Your task to perform on an android device: delete location history Image 0: 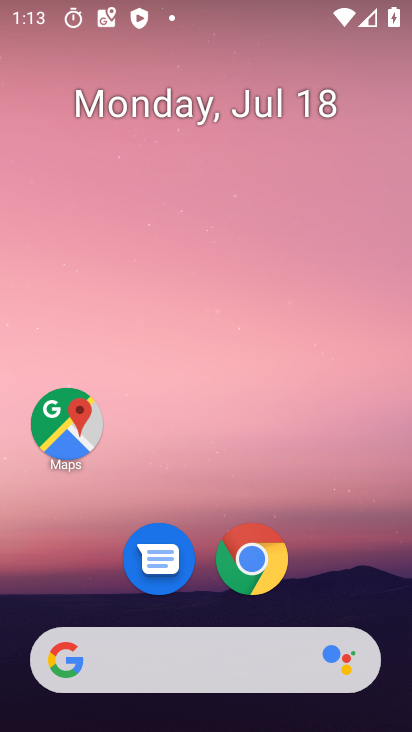
Step 0: click (73, 416)
Your task to perform on an android device: delete location history Image 1: 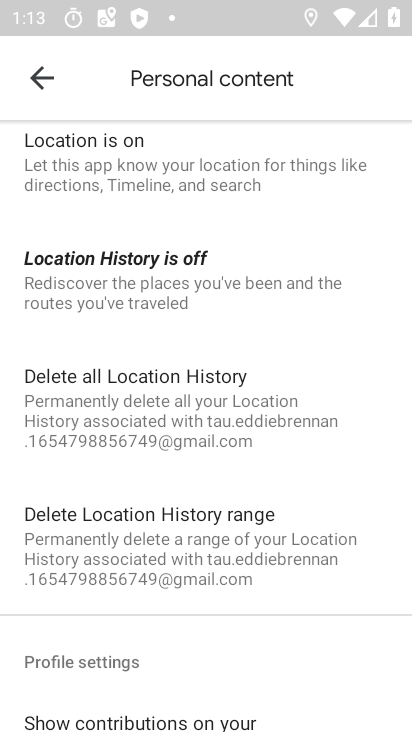
Step 1: click (159, 394)
Your task to perform on an android device: delete location history Image 2: 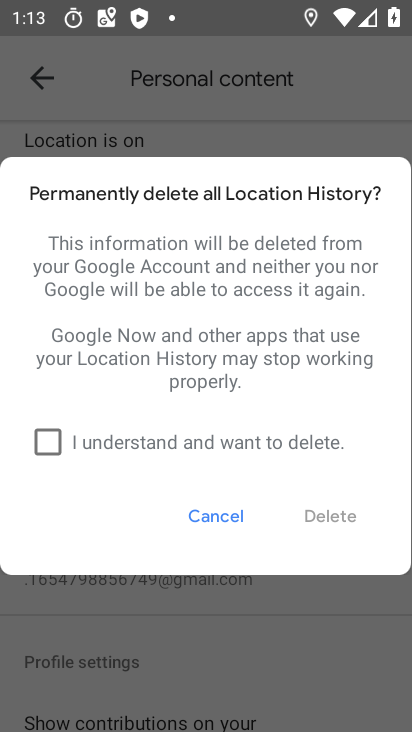
Step 2: click (52, 443)
Your task to perform on an android device: delete location history Image 3: 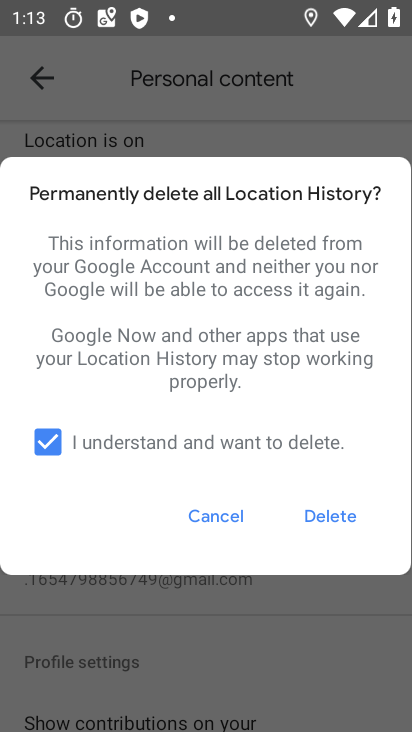
Step 3: click (333, 511)
Your task to perform on an android device: delete location history Image 4: 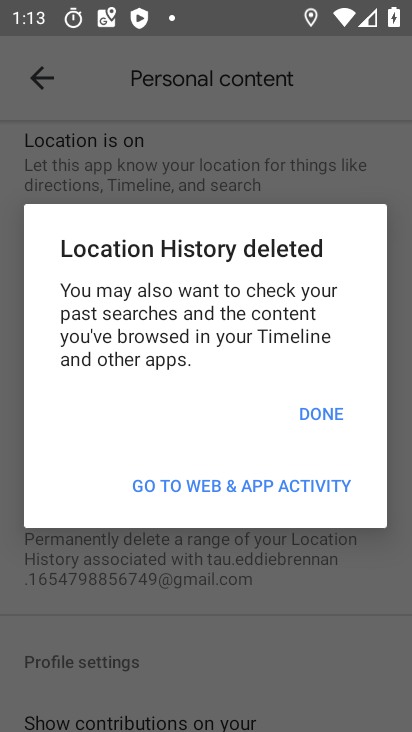
Step 4: click (324, 412)
Your task to perform on an android device: delete location history Image 5: 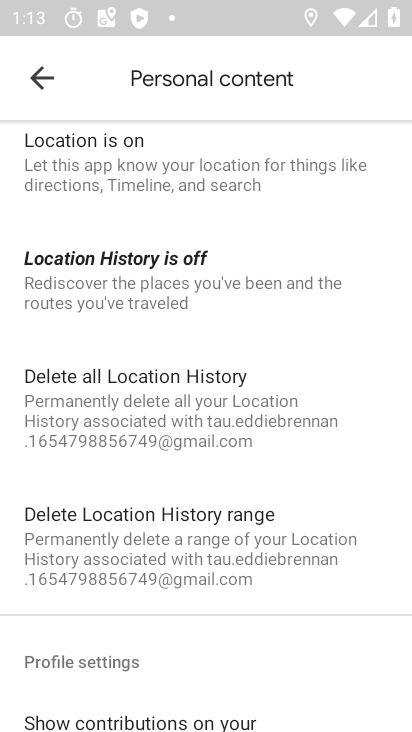
Step 5: task complete